Your task to perform on an android device: change keyboard looks Image 0: 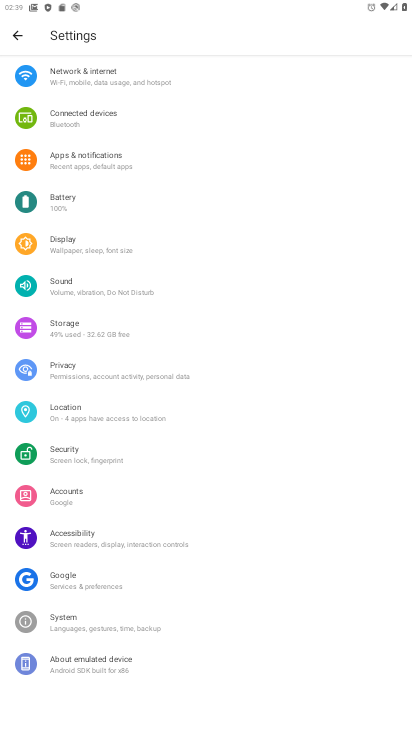
Step 0: click (124, 625)
Your task to perform on an android device: change keyboard looks Image 1: 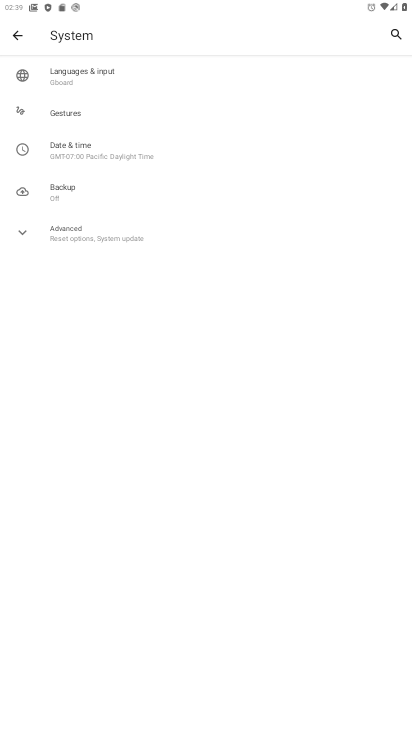
Step 1: click (90, 78)
Your task to perform on an android device: change keyboard looks Image 2: 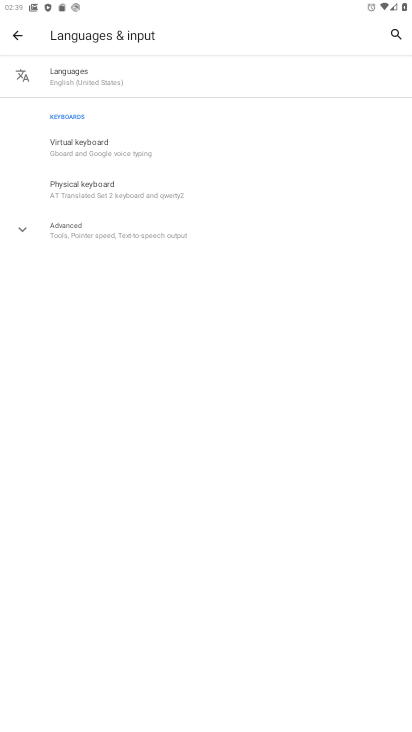
Step 2: click (130, 149)
Your task to perform on an android device: change keyboard looks Image 3: 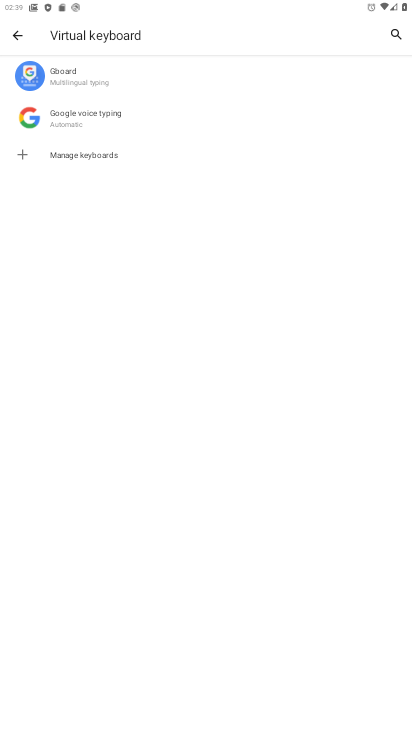
Step 3: click (71, 80)
Your task to perform on an android device: change keyboard looks Image 4: 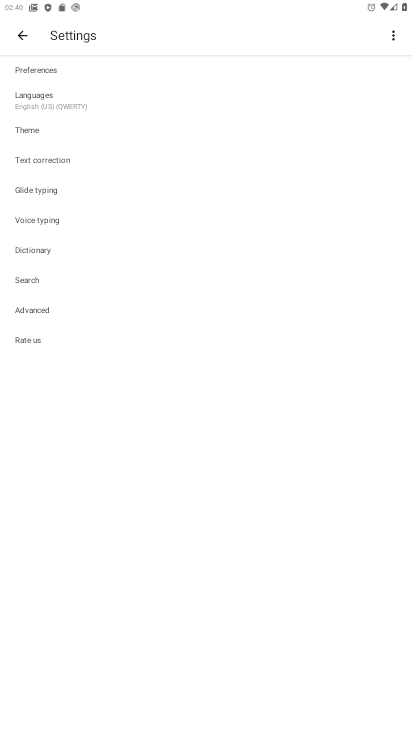
Step 4: click (39, 132)
Your task to perform on an android device: change keyboard looks Image 5: 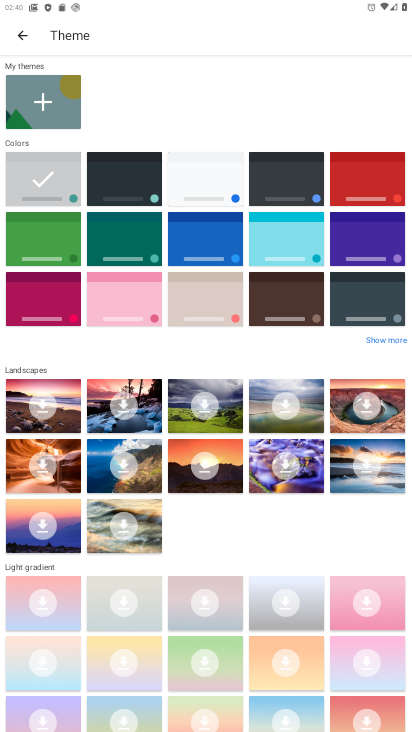
Step 5: click (222, 172)
Your task to perform on an android device: change keyboard looks Image 6: 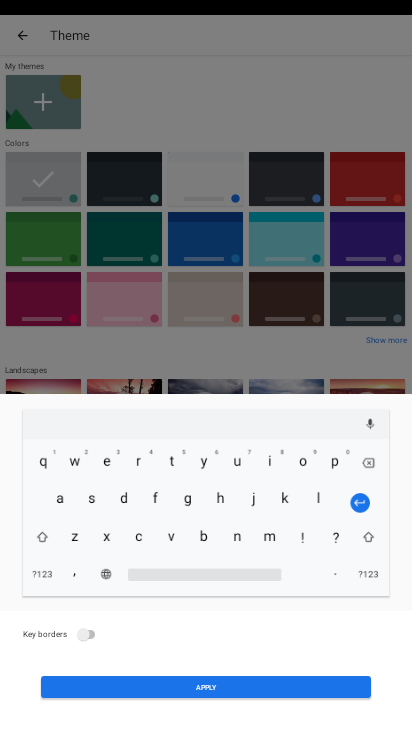
Step 6: click (212, 689)
Your task to perform on an android device: change keyboard looks Image 7: 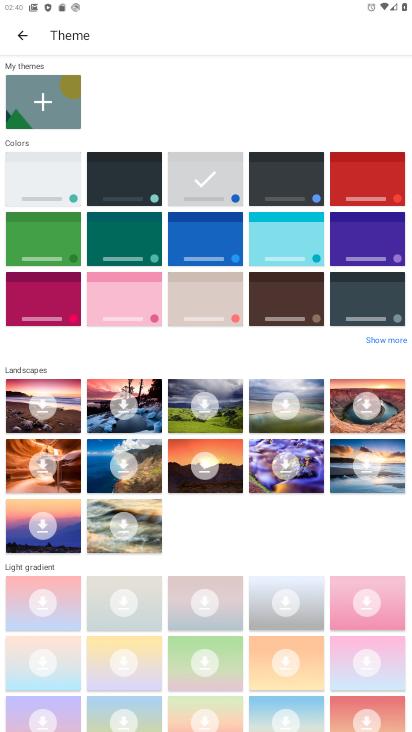
Step 7: task complete